Your task to perform on an android device: allow cookies in the chrome app Image 0: 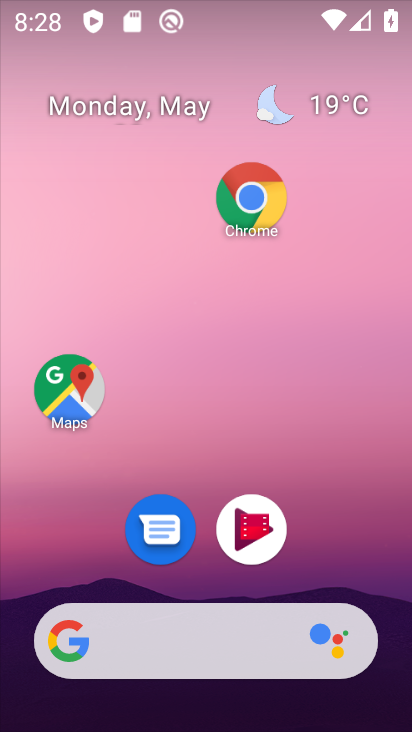
Step 0: click (268, 28)
Your task to perform on an android device: allow cookies in the chrome app Image 1: 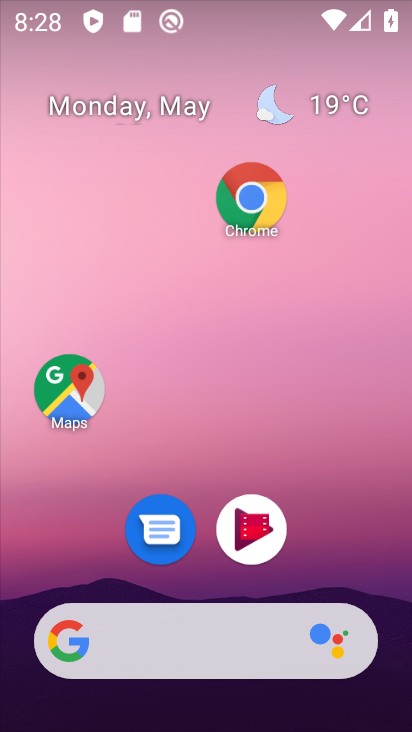
Step 1: drag from (306, 558) to (233, 0)
Your task to perform on an android device: allow cookies in the chrome app Image 2: 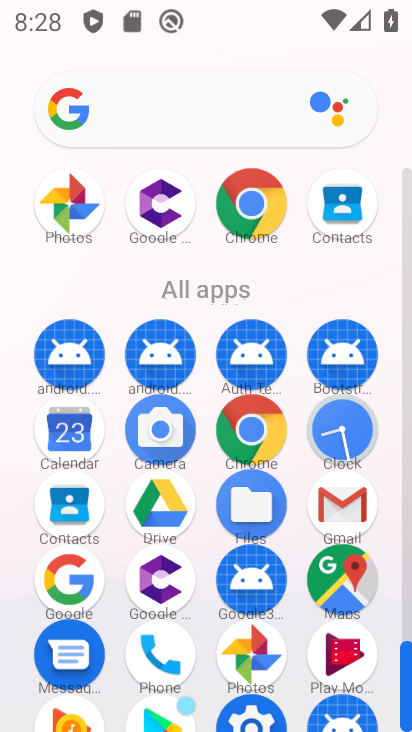
Step 2: click (246, 218)
Your task to perform on an android device: allow cookies in the chrome app Image 3: 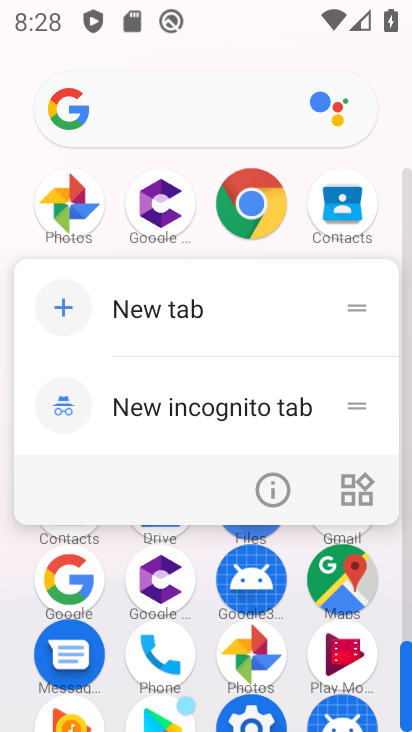
Step 3: click (249, 200)
Your task to perform on an android device: allow cookies in the chrome app Image 4: 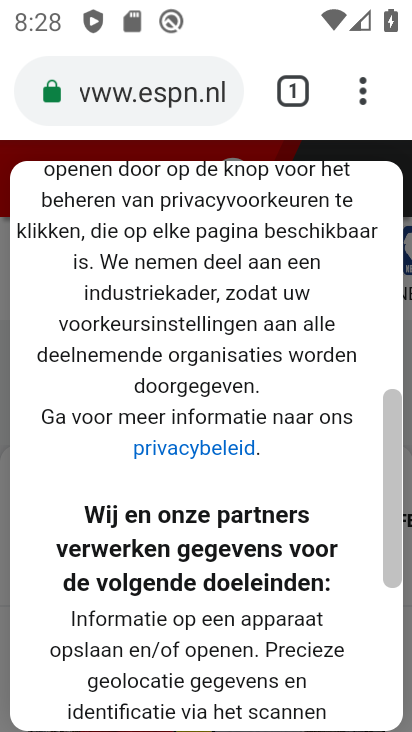
Step 4: click (361, 94)
Your task to perform on an android device: allow cookies in the chrome app Image 5: 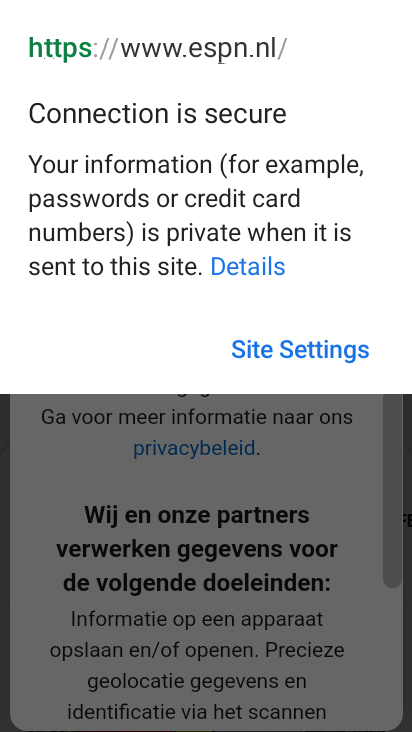
Step 5: click (330, 453)
Your task to perform on an android device: allow cookies in the chrome app Image 6: 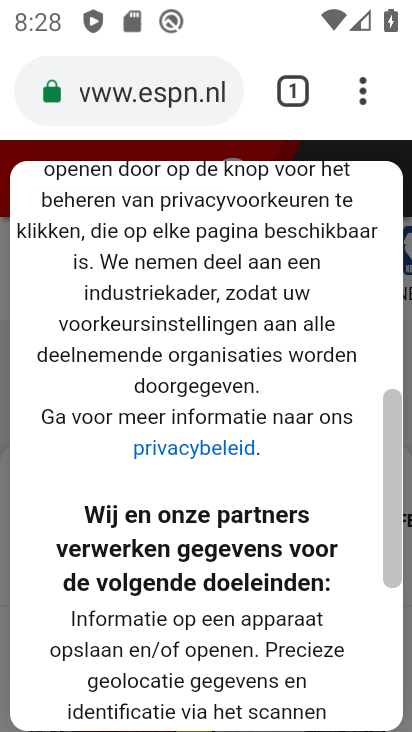
Step 6: click (367, 98)
Your task to perform on an android device: allow cookies in the chrome app Image 7: 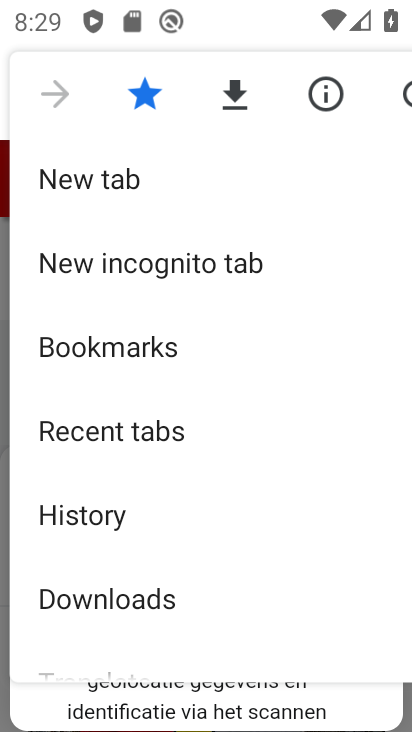
Step 7: drag from (200, 583) to (180, 114)
Your task to perform on an android device: allow cookies in the chrome app Image 8: 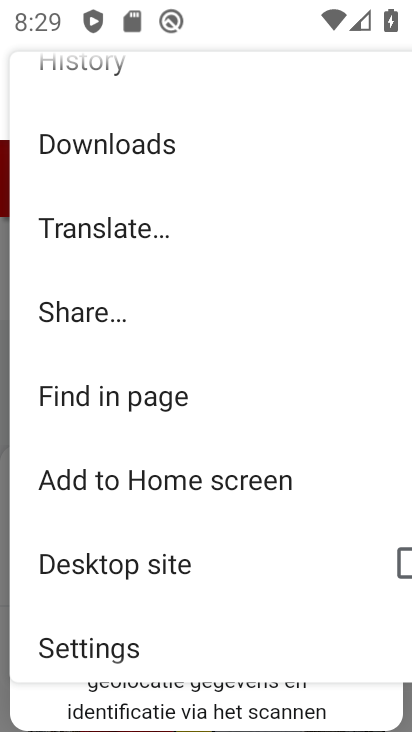
Step 8: click (104, 648)
Your task to perform on an android device: allow cookies in the chrome app Image 9: 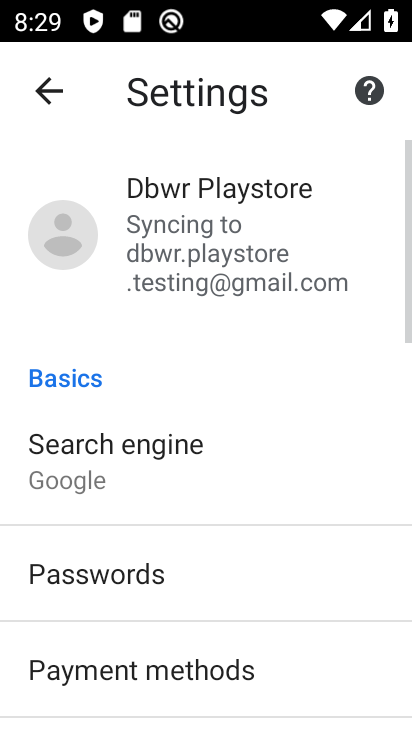
Step 9: drag from (104, 648) to (174, 250)
Your task to perform on an android device: allow cookies in the chrome app Image 10: 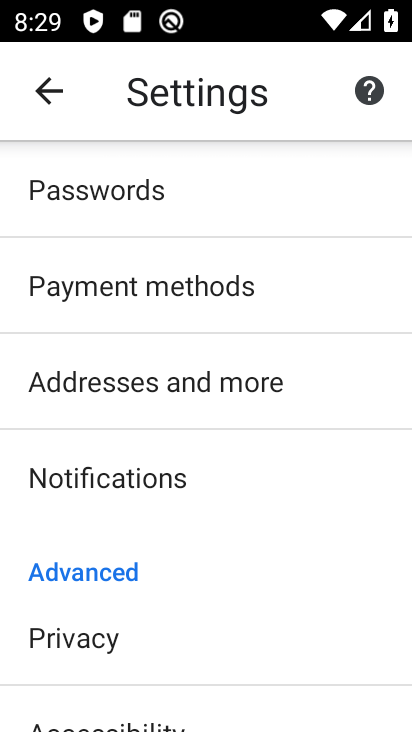
Step 10: drag from (162, 579) to (184, 140)
Your task to perform on an android device: allow cookies in the chrome app Image 11: 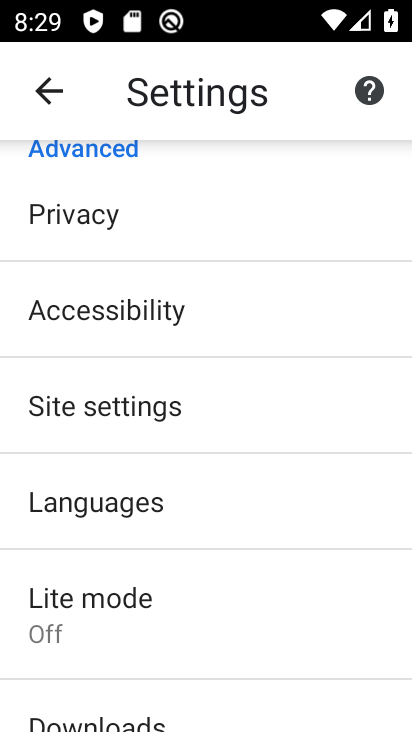
Step 11: drag from (203, 658) to (184, 310)
Your task to perform on an android device: allow cookies in the chrome app Image 12: 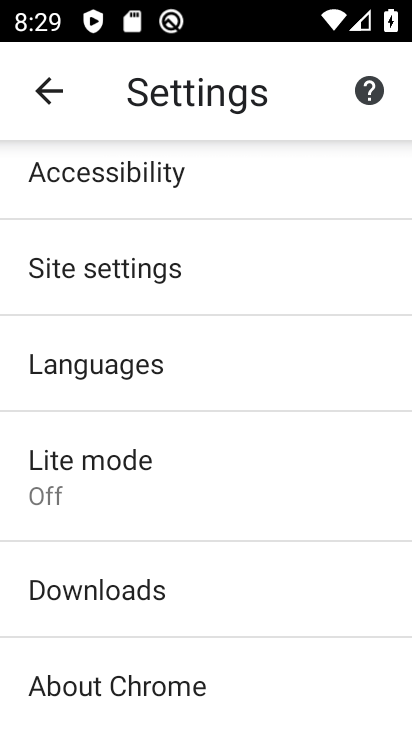
Step 12: click (94, 261)
Your task to perform on an android device: allow cookies in the chrome app Image 13: 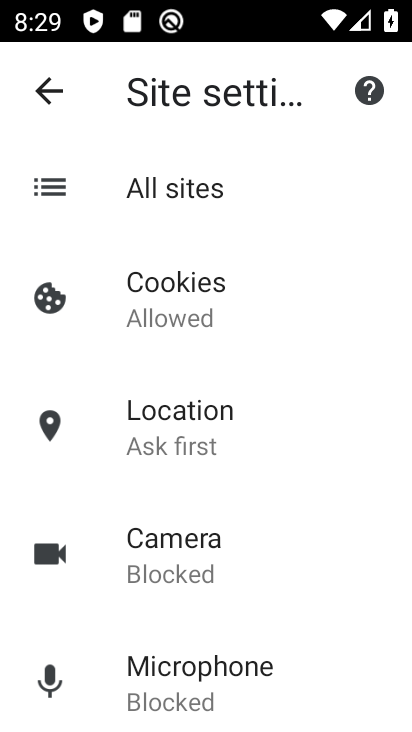
Step 13: click (159, 303)
Your task to perform on an android device: allow cookies in the chrome app Image 14: 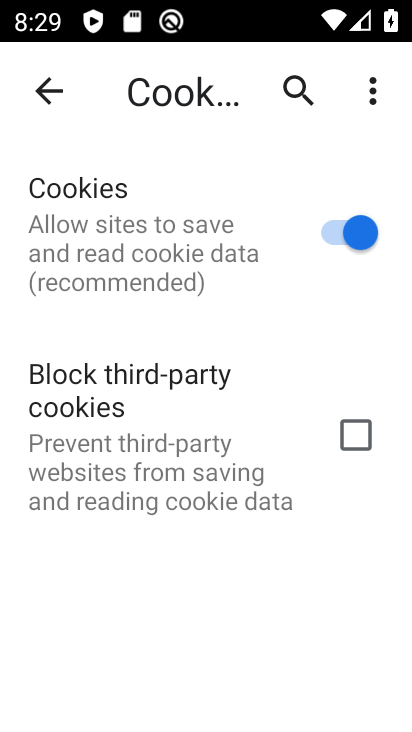
Step 14: task complete